Your task to perform on an android device: read, delete, or share a saved page in the chrome app Image 0: 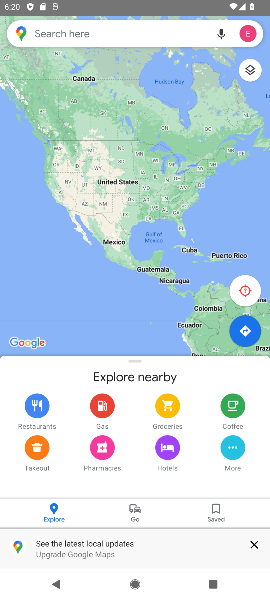
Step 0: press home button
Your task to perform on an android device: read, delete, or share a saved page in the chrome app Image 1: 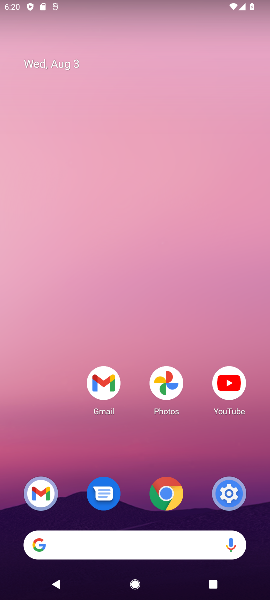
Step 1: drag from (139, 443) to (160, 39)
Your task to perform on an android device: read, delete, or share a saved page in the chrome app Image 2: 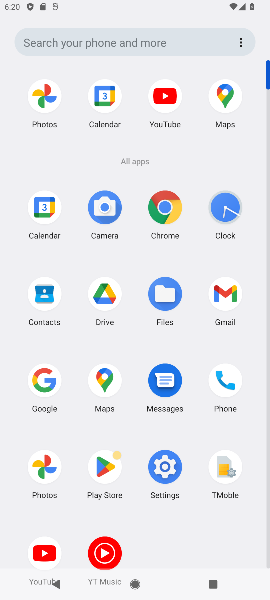
Step 2: click (166, 203)
Your task to perform on an android device: read, delete, or share a saved page in the chrome app Image 3: 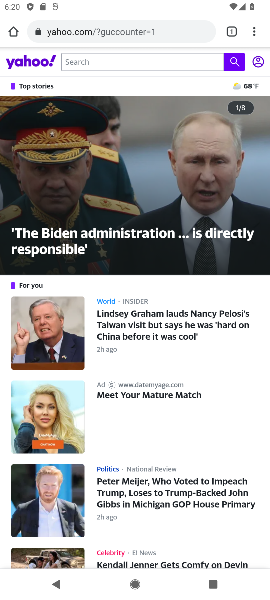
Step 3: click (252, 33)
Your task to perform on an android device: read, delete, or share a saved page in the chrome app Image 4: 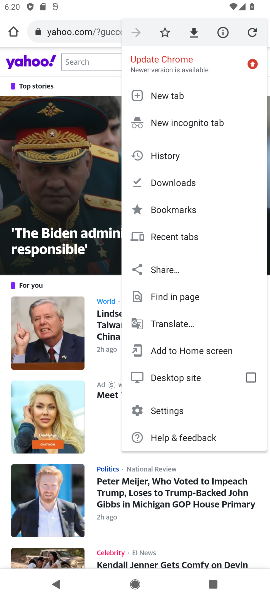
Step 4: click (180, 182)
Your task to perform on an android device: read, delete, or share a saved page in the chrome app Image 5: 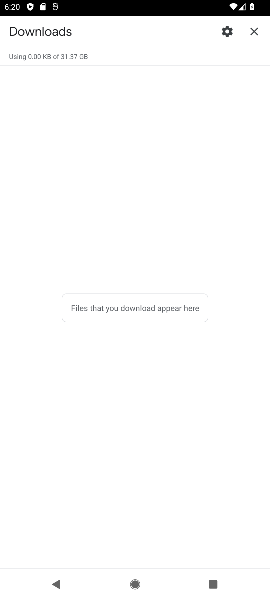
Step 5: click (78, 56)
Your task to perform on an android device: read, delete, or share a saved page in the chrome app Image 6: 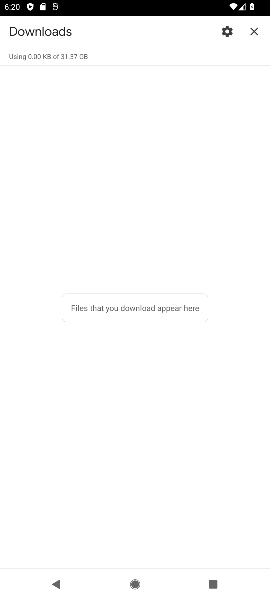
Step 6: click (70, 35)
Your task to perform on an android device: read, delete, or share a saved page in the chrome app Image 7: 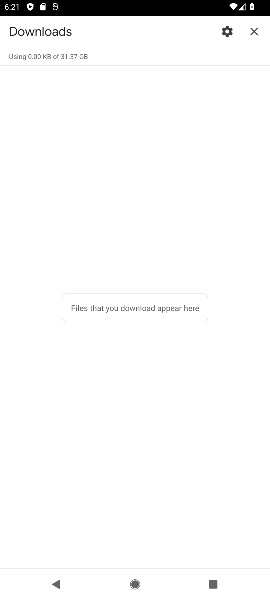
Step 7: click (227, 33)
Your task to perform on an android device: read, delete, or share a saved page in the chrome app Image 8: 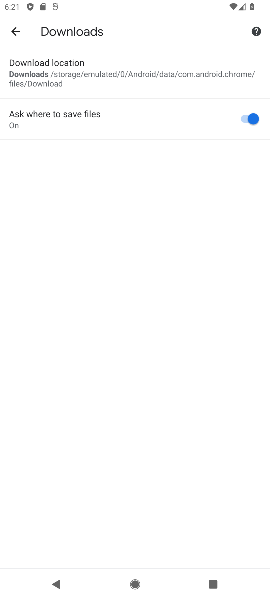
Step 8: task complete